Your task to perform on an android device: Open maps Image 0: 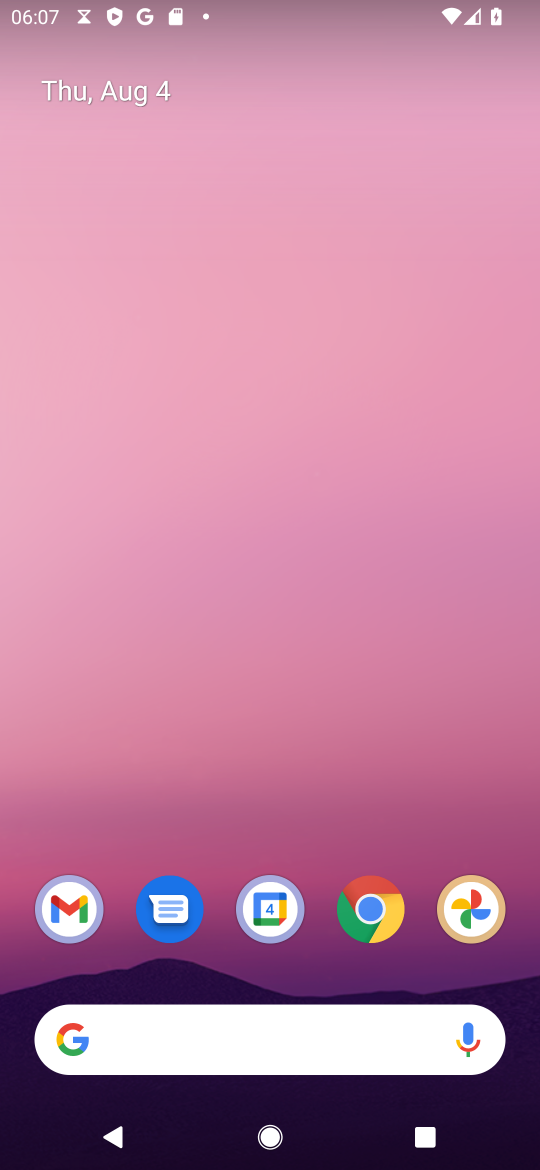
Step 0: press home button
Your task to perform on an android device: Open maps Image 1: 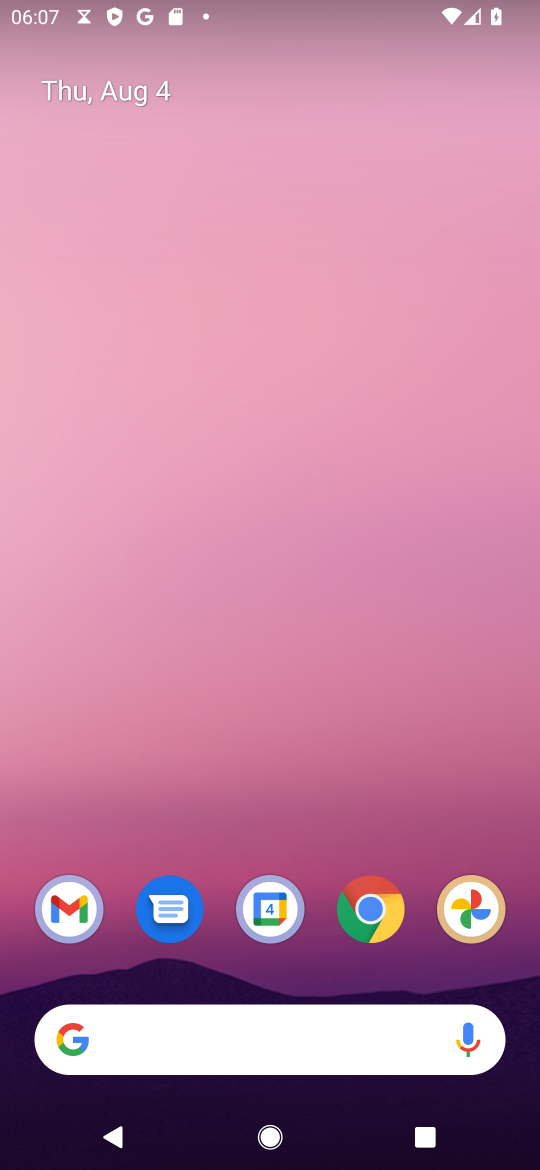
Step 1: drag from (245, 1053) to (461, 208)
Your task to perform on an android device: Open maps Image 2: 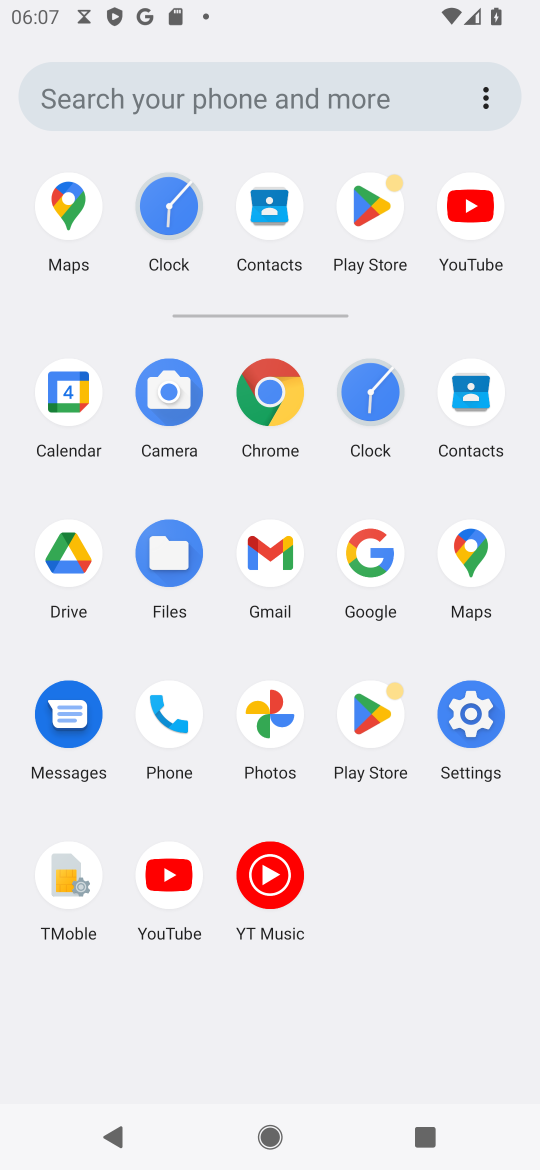
Step 2: click (464, 569)
Your task to perform on an android device: Open maps Image 3: 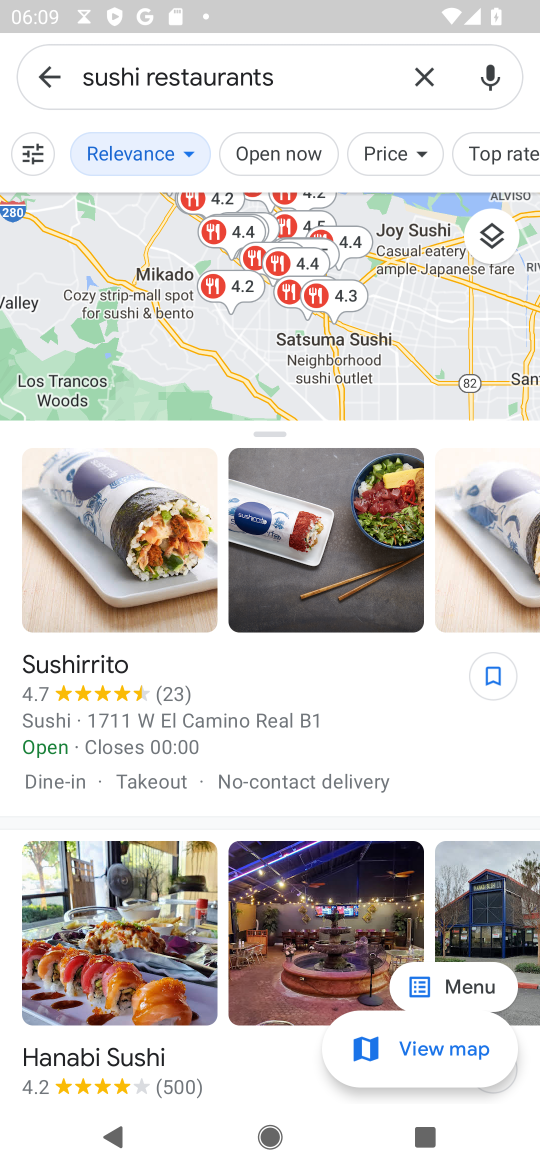
Step 3: task complete